Your task to perform on an android device: turn on showing notifications on the lock screen Image 0: 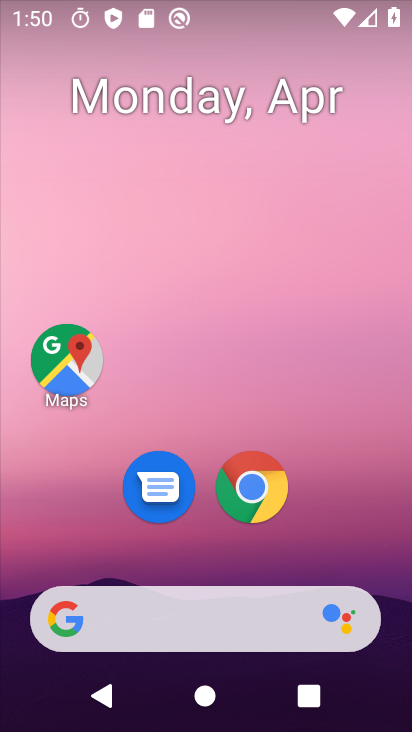
Step 0: drag from (286, 596) to (269, 219)
Your task to perform on an android device: turn on showing notifications on the lock screen Image 1: 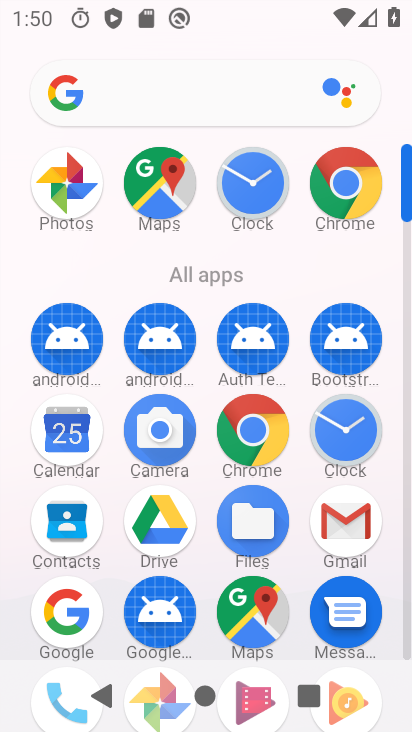
Step 1: drag from (112, 564) to (105, 446)
Your task to perform on an android device: turn on showing notifications on the lock screen Image 2: 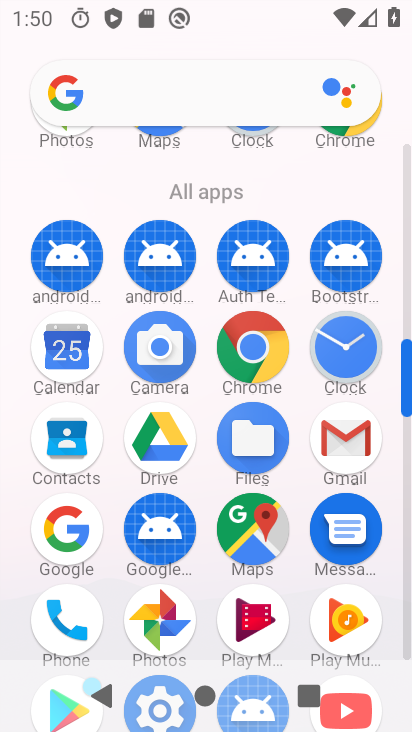
Step 2: drag from (109, 573) to (137, 439)
Your task to perform on an android device: turn on showing notifications on the lock screen Image 3: 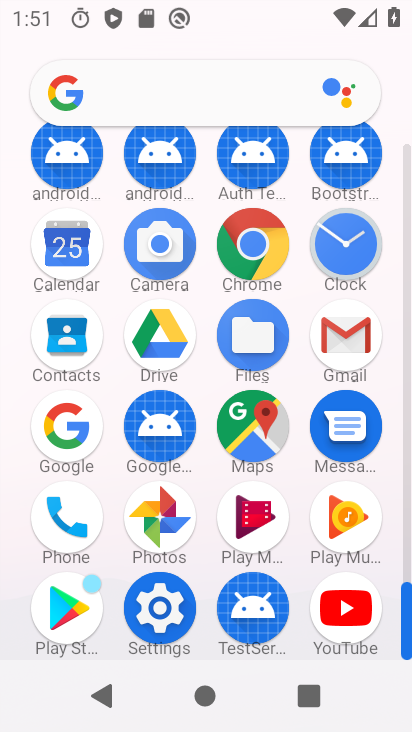
Step 3: drag from (129, 633) to (170, 601)
Your task to perform on an android device: turn on showing notifications on the lock screen Image 4: 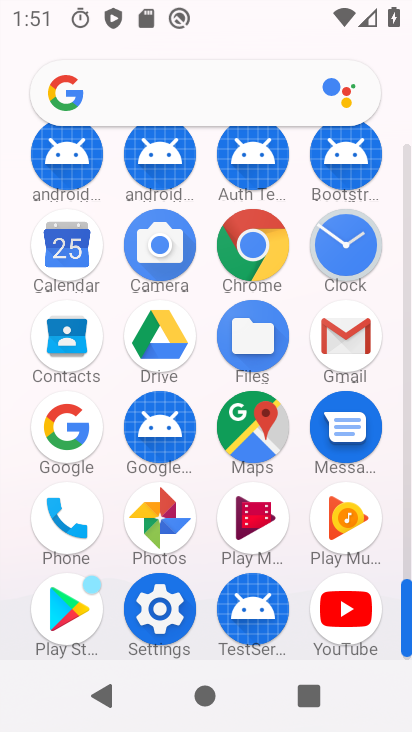
Step 4: click (170, 601)
Your task to perform on an android device: turn on showing notifications on the lock screen Image 5: 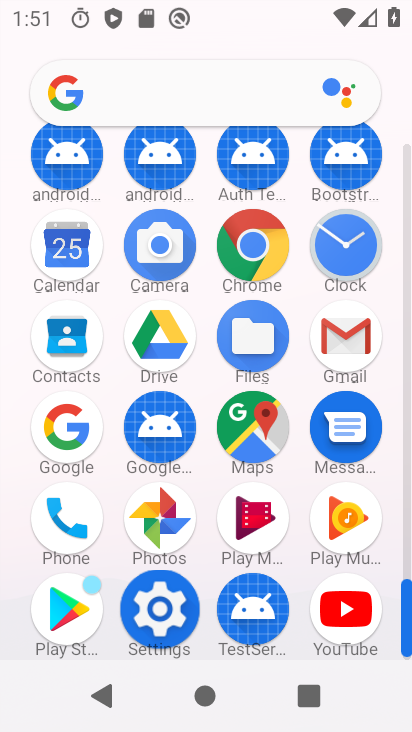
Step 5: click (150, 608)
Your task to perform on an android device: turn on showing notifications on the lock screen Image 6: 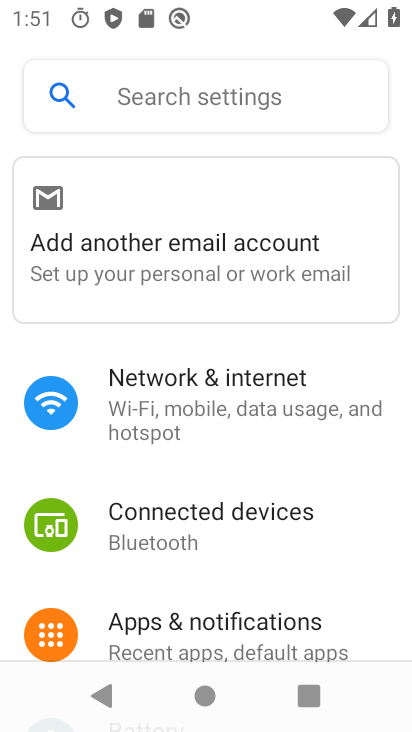
Step 6: click (197, 105)
Your task to perform on an android device: turn on showing notifications on the lock screen Image 7: 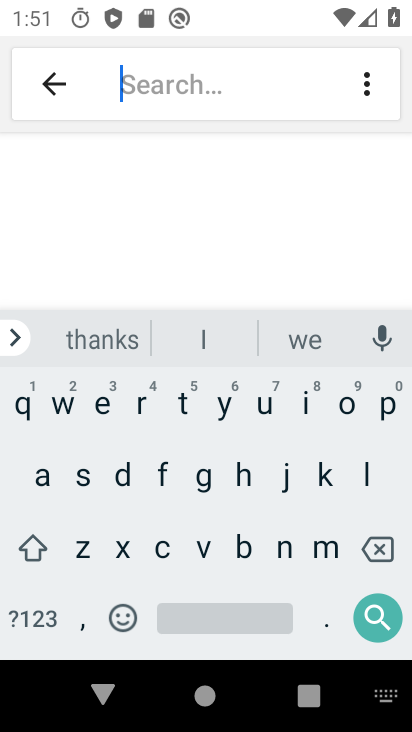
Step 7: click (362, 485)
Your task to perform on an android device: turn on showing notifications on the lock screen Image 8: 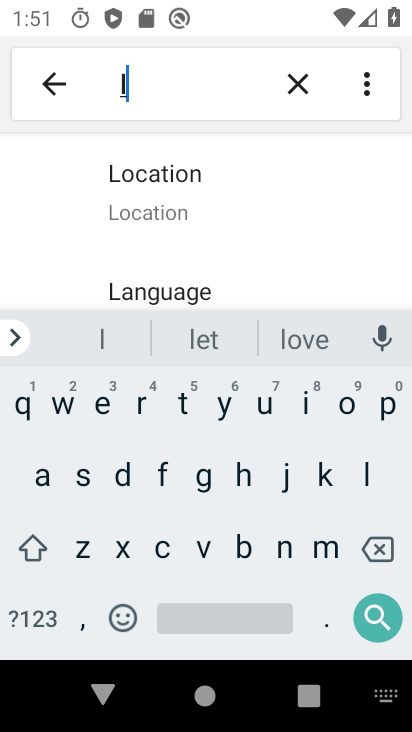
Step 8: click (338, 404)
Your task to perform on an android device: turn on showing notifications on the lock screen Image 9: 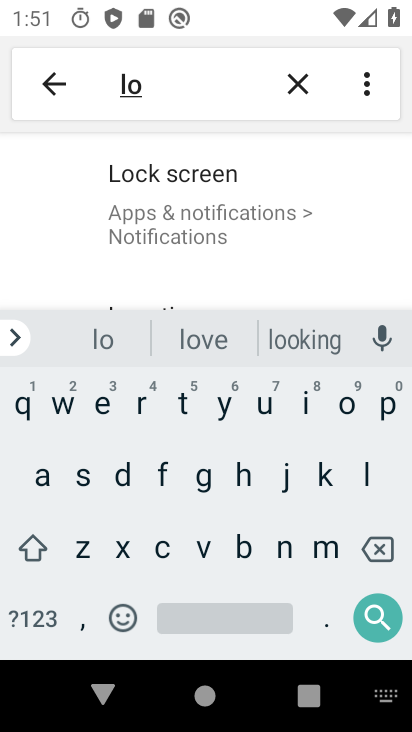
Step 9: click (194, 200)
Your task to perform on an android device: turn on showing notifications on the lock screen Image 10: 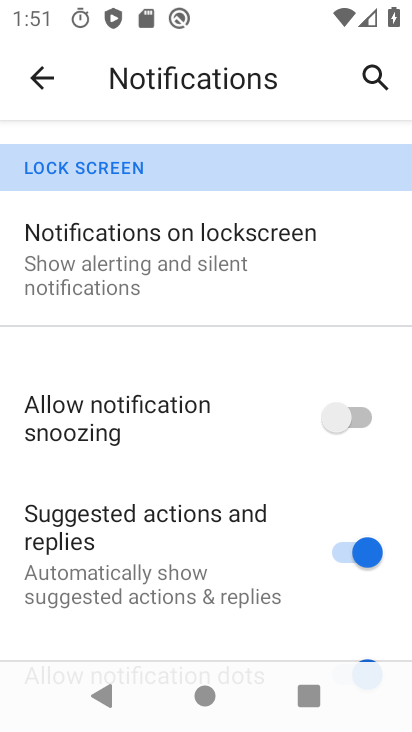
Step 10: click (137, 261)
Your task to perform on an android device: turn on showing notifications on the lock screen Image 11: 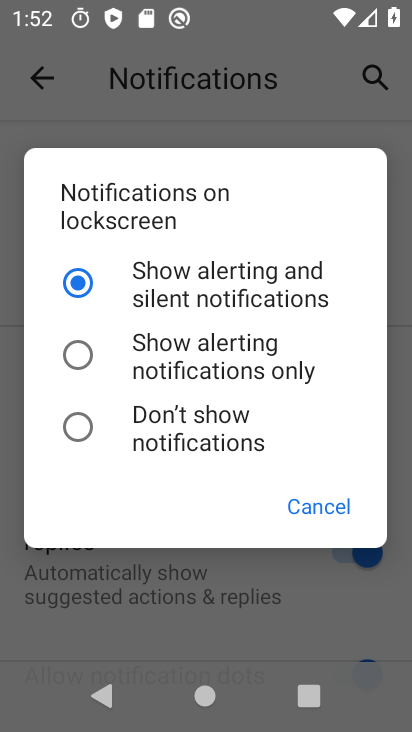
Step 11: task complete